Your task to perform on an android device: Open location settings Image 0: 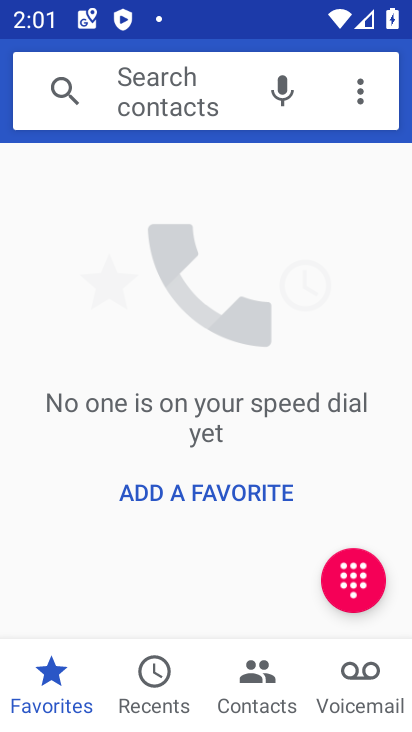
Step 0: press home button
Your task to perform on an android device: Open location settings Image 1: 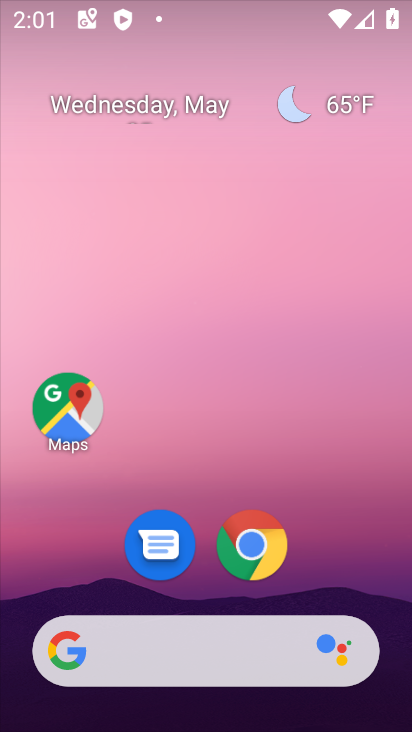
Step 1: drag from (354, 471) to (223, 51)
Your task to perform on an android device: Open location settings Image 2: 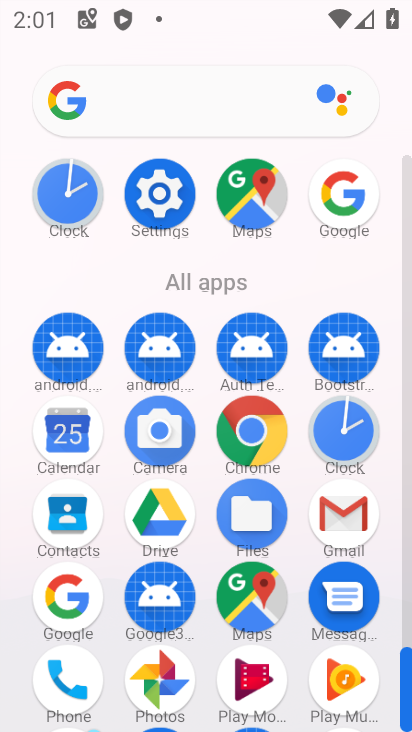
Step 2: click (167, 232)
Your task to perform on an android device: Open location settings Image 3: 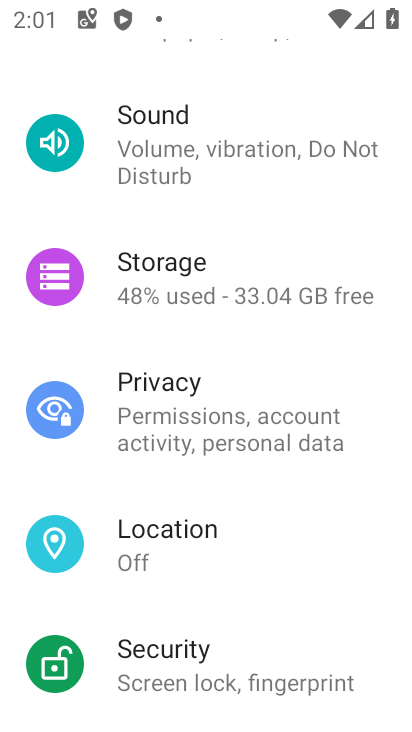
Step 3: click (246, 556)
Your task to perform on an android device: Open location settings Image 4: 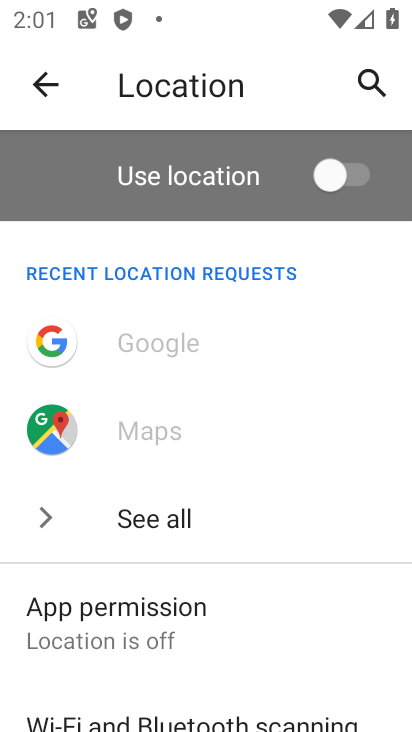
Step 4: task complete